Your task to perform on an android device: Search for "usb-a" on walmart, select the first entry, add it to the cart, then select checkout. Image 0: 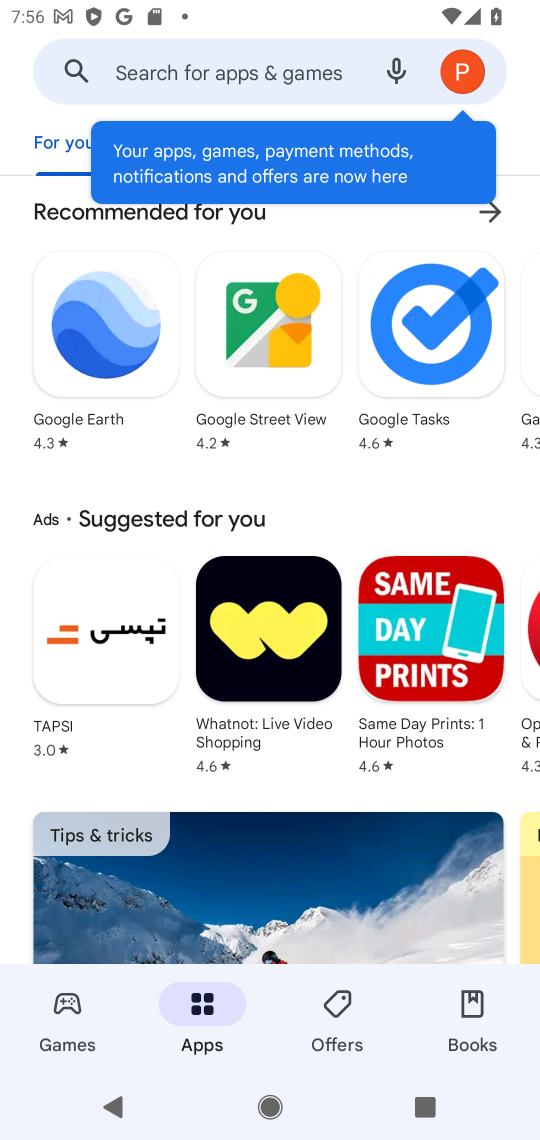
Step 0: press home button
Your task to perform on an android device: Search for "usb-a" on walmart, select the first entry, add it to the cart, then select checkout. Image 1: 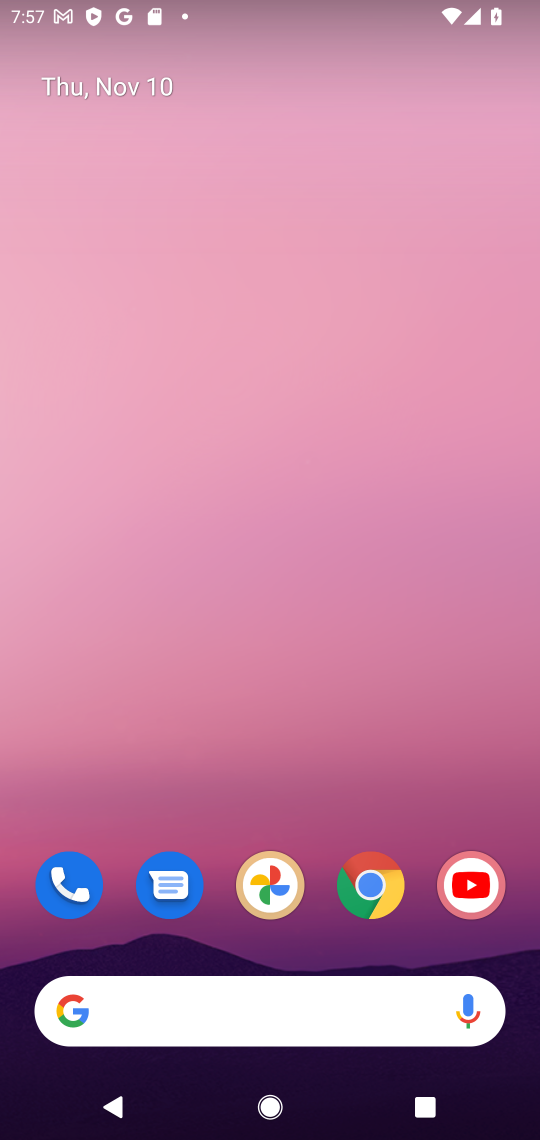
Step 1: click (352, 884)
Your task to perform on an android device: Search for "usb-a" on walmart, select the first entry, add it to the cart, then select checkout. Image 2: 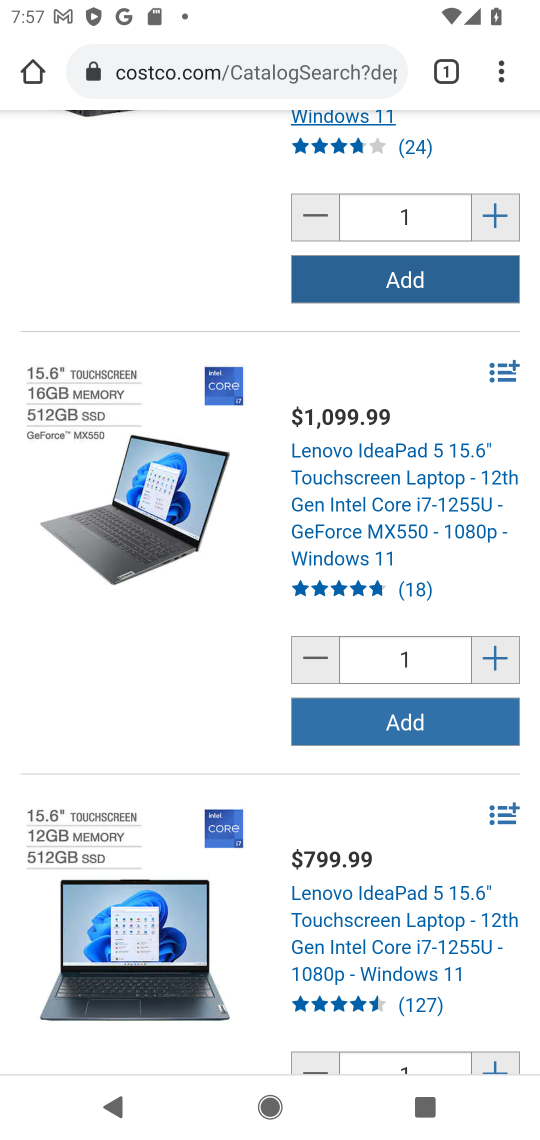
Step 2: click (282, 75)
Your task to perform on an android device: Search for "usb-a" on walmart, select the first entry, add it to the cart, then select checkout. Image 3: 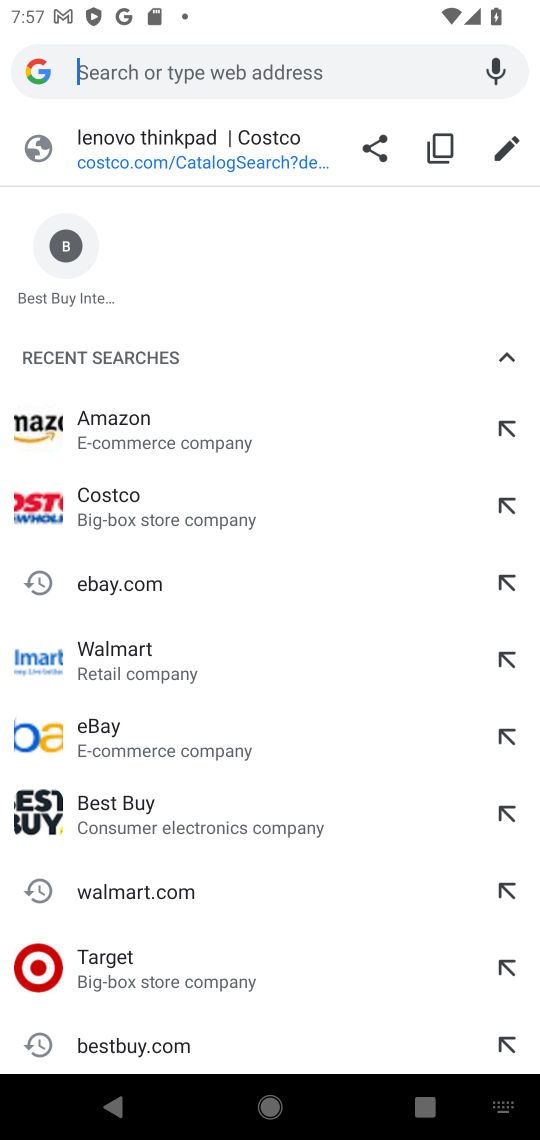
Step 3: type "walmart"
Your task to perform on an android device: Search for "usb-a" on walmart, select the first entry, add it to the cart, then select checkout. Image 4: 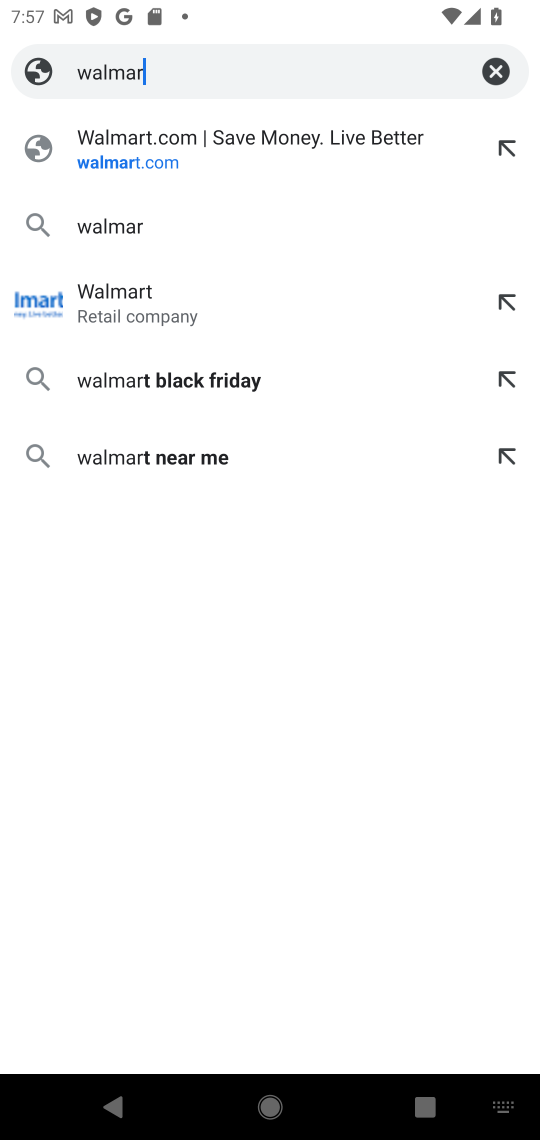
Step 4: press enter
Your task to perform on an android device: Search for "usb-a" on walmart, select the first entry, add it to the cart, then select checkout. Image 5: 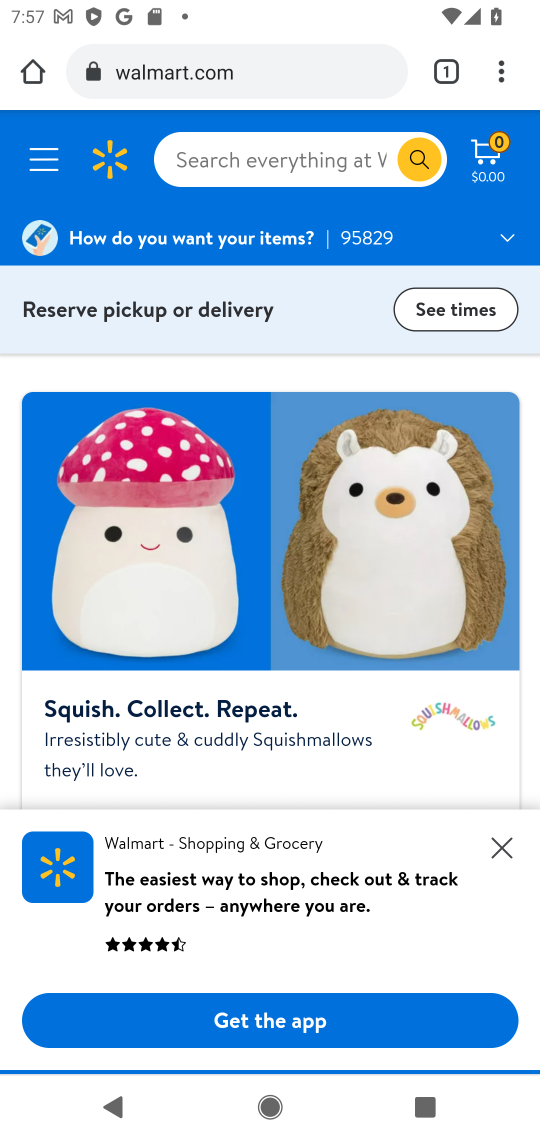
Step 5: click (297, 161)
Your task to perform on an android device: Search for "usb-a" on walmart, select the first entry, add it to the cart, then select checkout. Image 6: 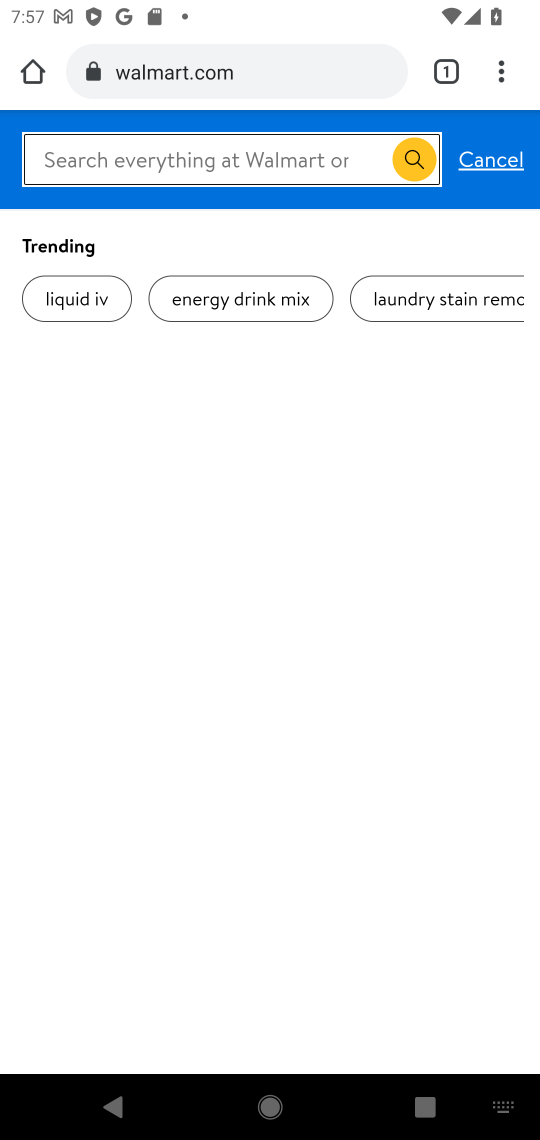
Step 6: type "usb-a"
Your task to perform on an android device: Search for "usb-a" on walmart, select the first entry, add it to the cart, then select checkout. Image 7: 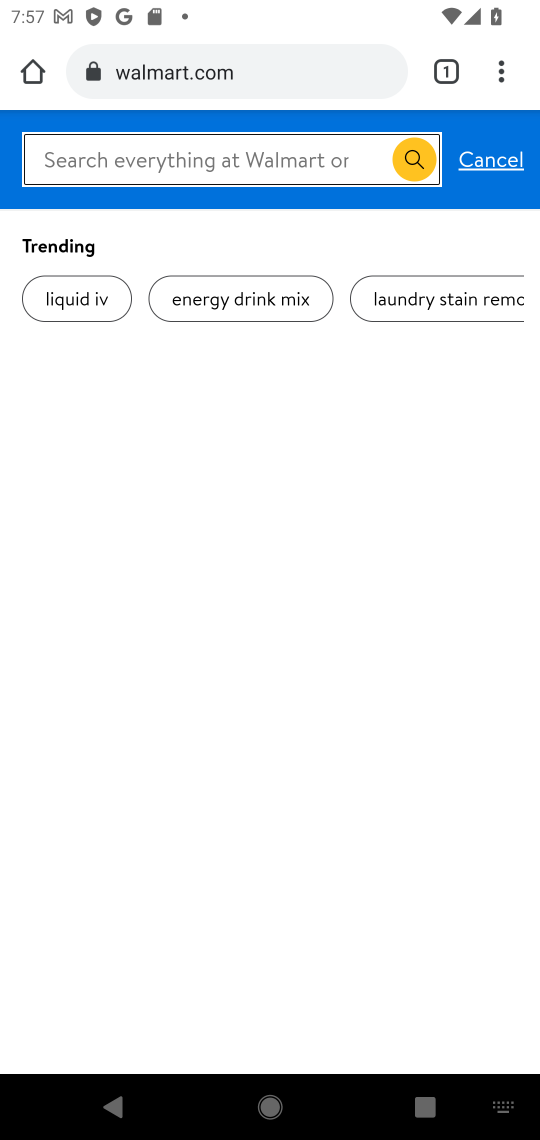
Step 7: press enter
Your task to perform on an android device: Search for "usb-a" on walmart, select the first entry, add it to the cart, then select checkout. Image 8: 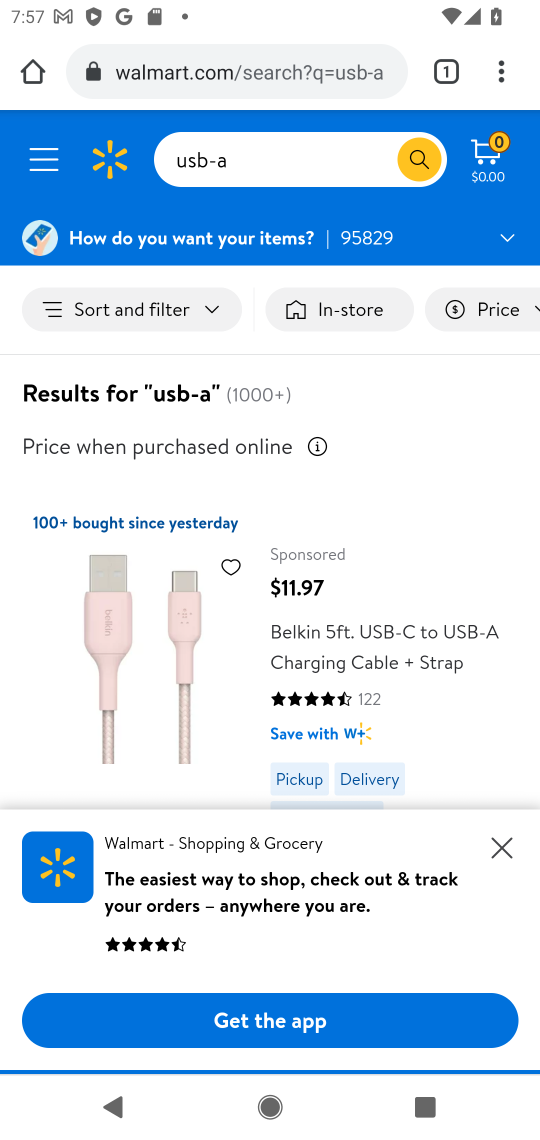
Step 8: click (506, 851)
Your task to perform on an android device: Search for "usb-a" on walmart, select the first entry, add it to the cart, then select checkout. Image 9: 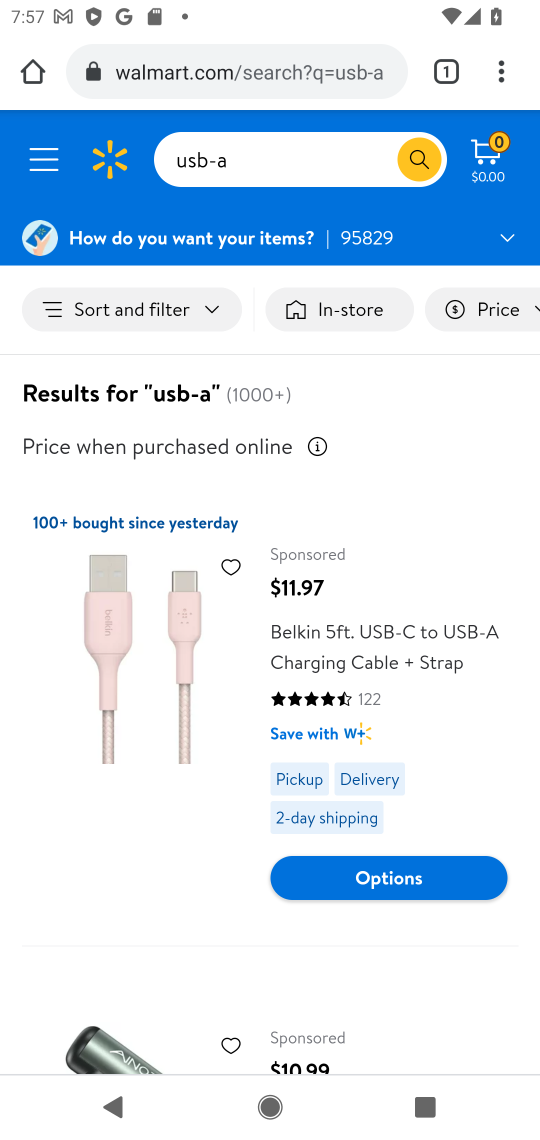
Step 9: drag from (452, 987) to (428, 607)
Your task to perform on an android device: Search for "usb-a" on walmart, select the first entry, add it to the cart, then select checkout. Image 10: 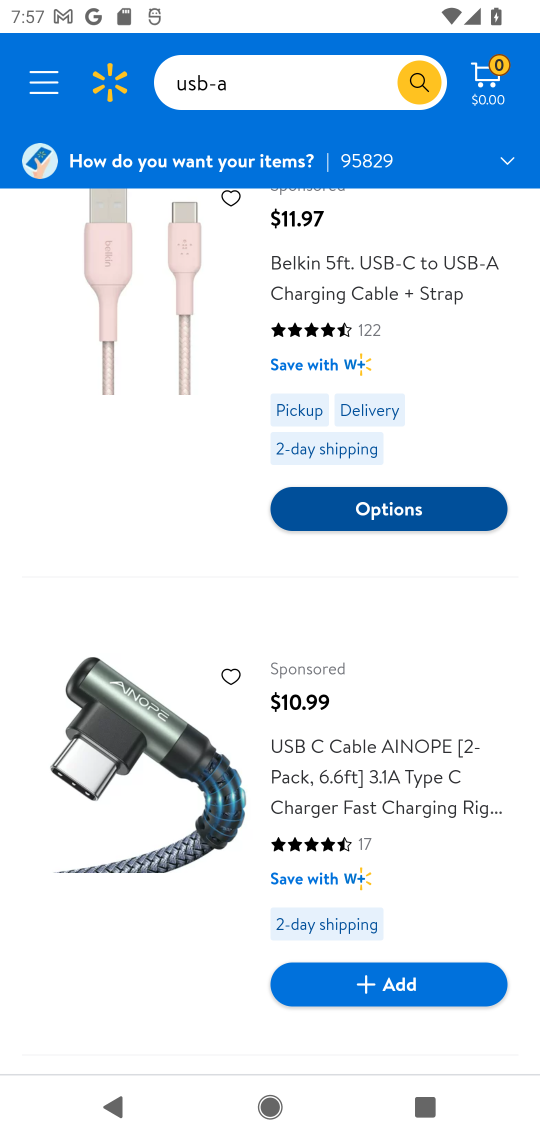
Step 10: drag from (455, 823) to (429, 418)
Your task to perform on an android device: Search for "usb-a" on walmart, select the first entry, add it to the cart, then select checkout. Image 11: 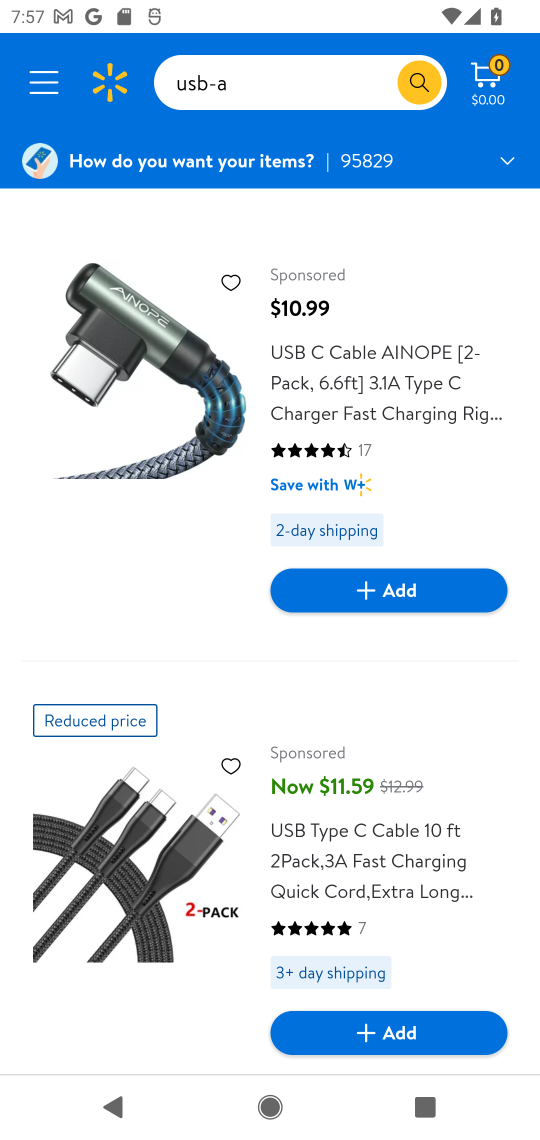
Step 11: drag from (444, 928) to (357, 362)
Your task to perform on an android device: Search for "usb-a" on walmart, select the first entry, add it to the cart, then select checkout. Image 12: 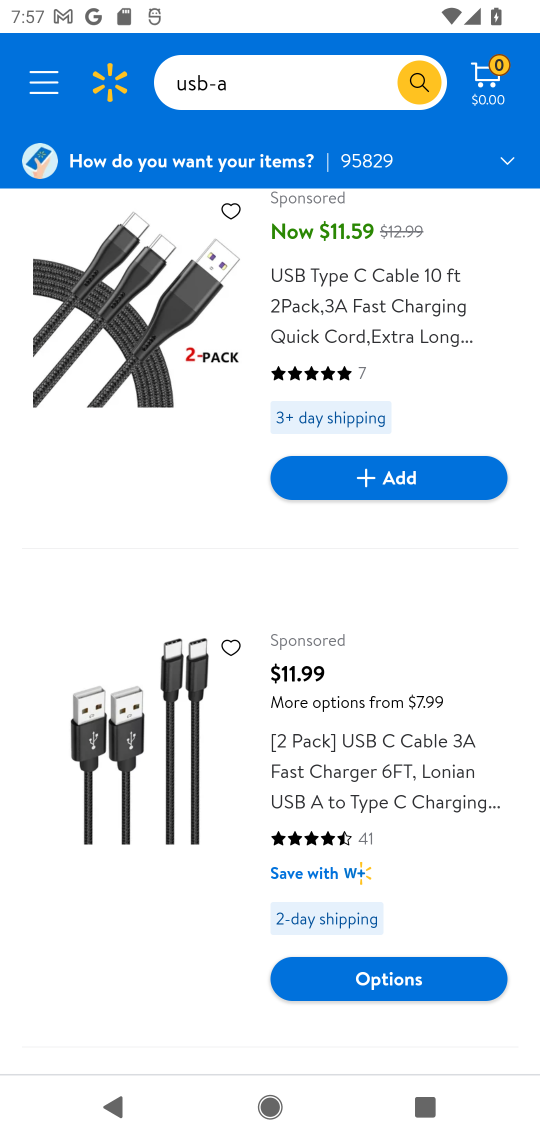
Step 12: drag from (476, 1026) to (372, 364)
Your task to perform on an android device: Search for "usb-a" on walmart, select the first entry, add it to the cart, then select checkout. Image 13: 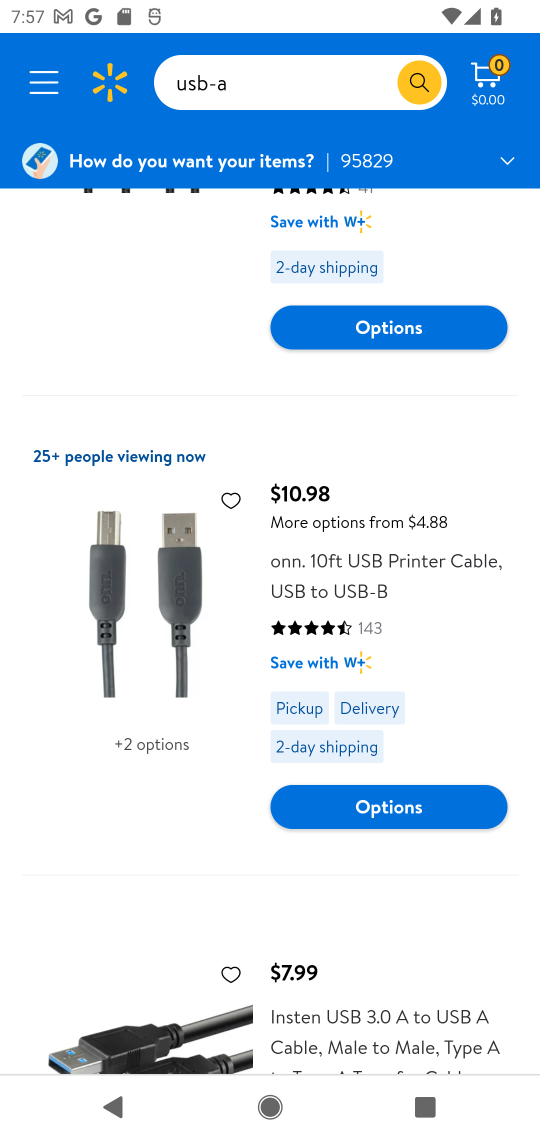
Step 13: drag from (455, 945) to (391, 465)
Your task to perform on an android device: Search for "usb-a" on walmart, select the first entry, add it to the cart, then select checkout. Image 14: 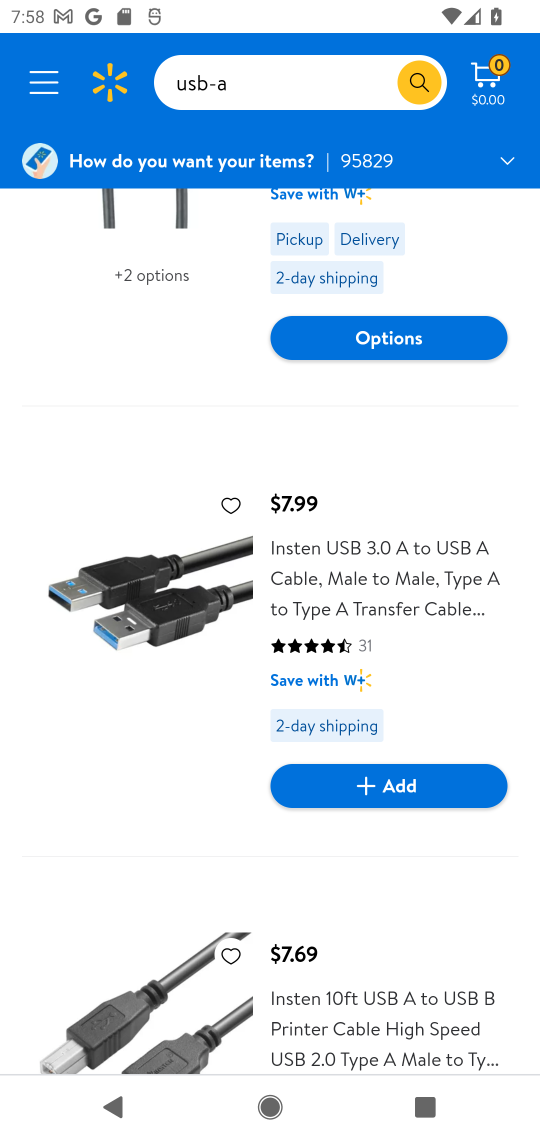
Step 14: click (133, 623)
Your task to perform on an android device: Search for "usb-a" on walmart, select the first entry, add it to the cart, then select checkout. Image 15: 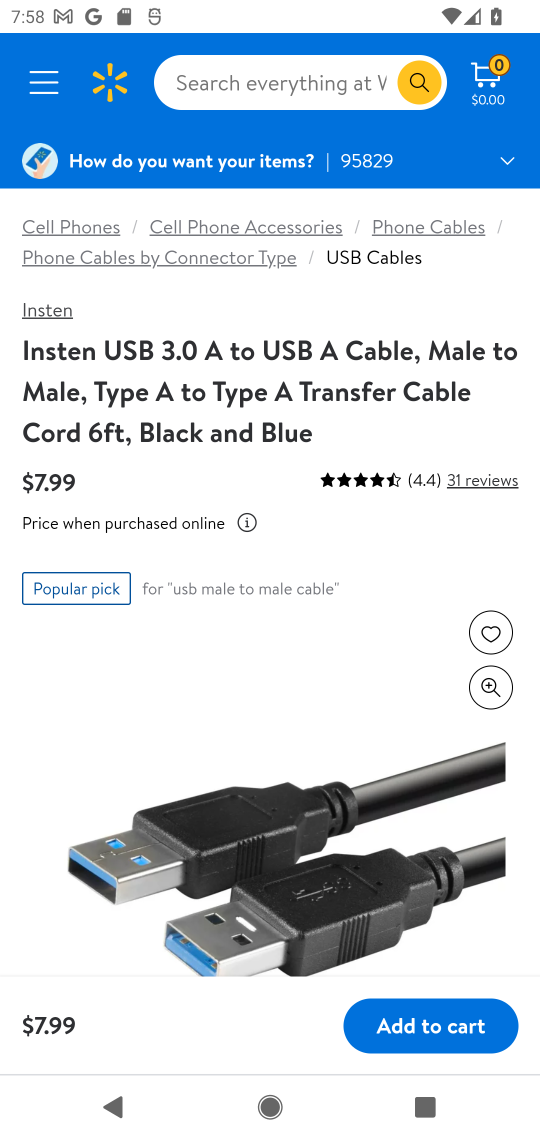
Step 15: click (458, 1018)
Your task to perform on an android device: Search for "usb-a" on walmart, select the first entry, add it to the cart, then select checkout. Image 16: 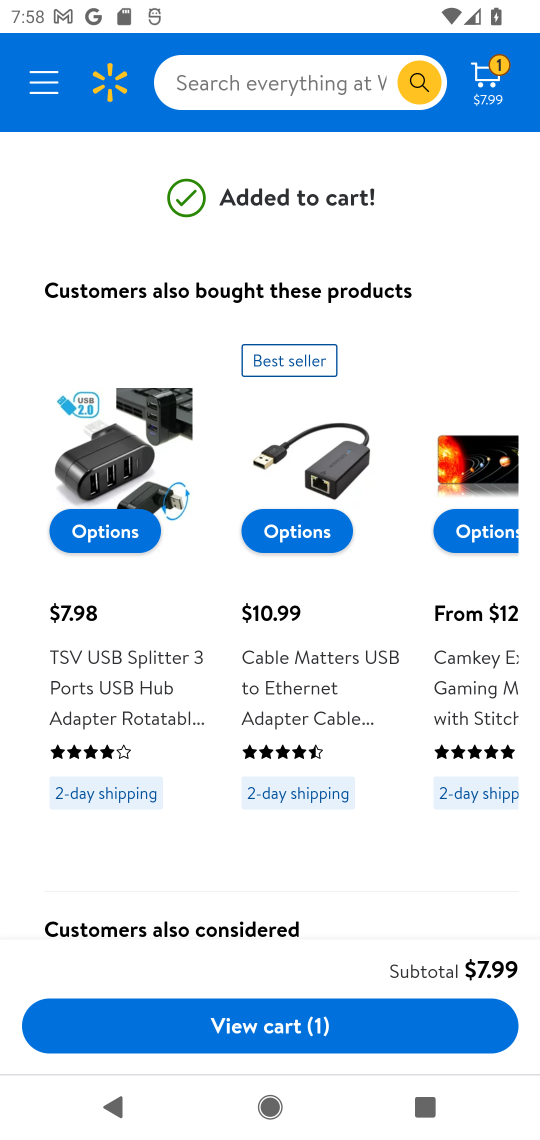
Step 16: click (493, 72)
Your task to perform on an android device: Search for "usb-a" on walmart, select the first entry, add it to the cart, then select checkout. Image 17: 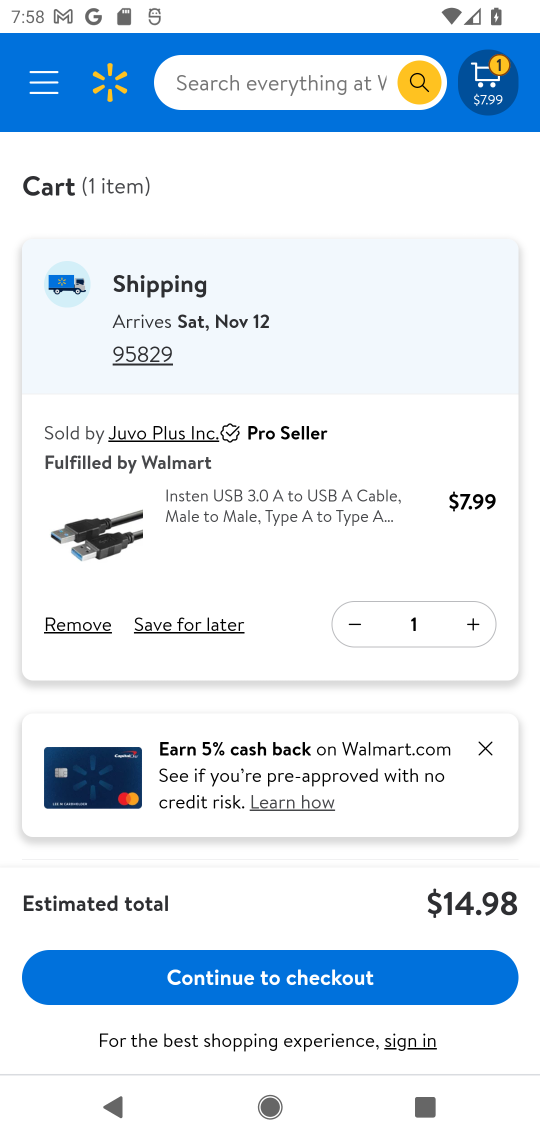
Step 17: click (298, 982)
Your task to perform on an android device: Search for "usb-a" on walmart, select the first entry, add it to the cart, then select checkout. Image 18: 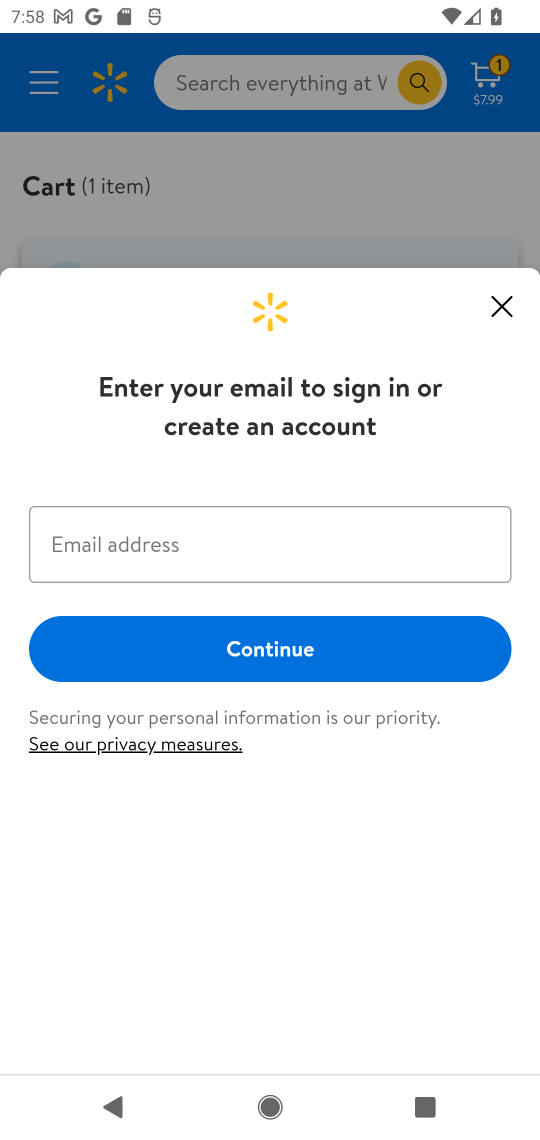
Step 18: task complete